Your task to perform on an android device: toggle data saver in the chrome app Image 0: 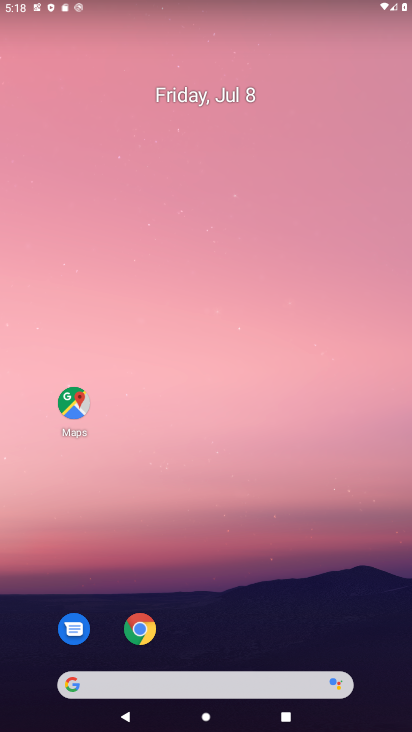
Step 0: press home button
Your task to perform on an android device: toggle data saver in the chrome app Image 1: 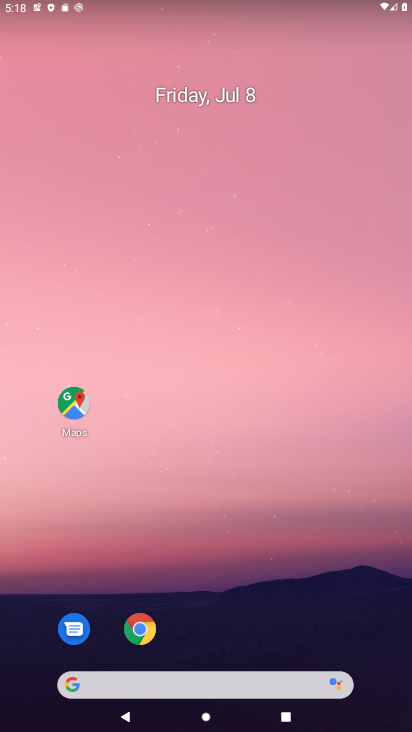
Step 1: drag from (259, 648) to (231, 264)
Your task to perform on an android device: toggle data saver in the chrome app Image 2: 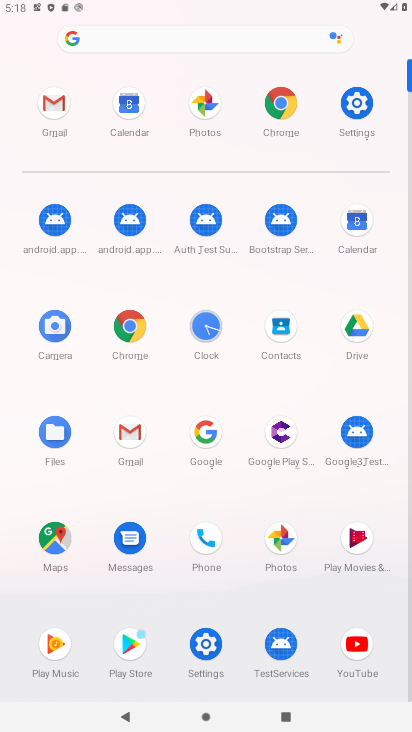
Step 2: click (270, 100)
Your task to perform on an android device: toggle data saver in the chrome app Image 3: 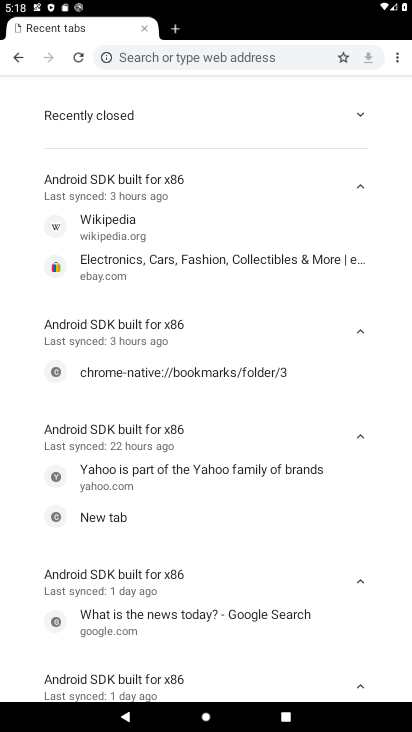
Step 3: press back button
Your task to perform on an android device: toggle data saver in the chrome app Image 4: 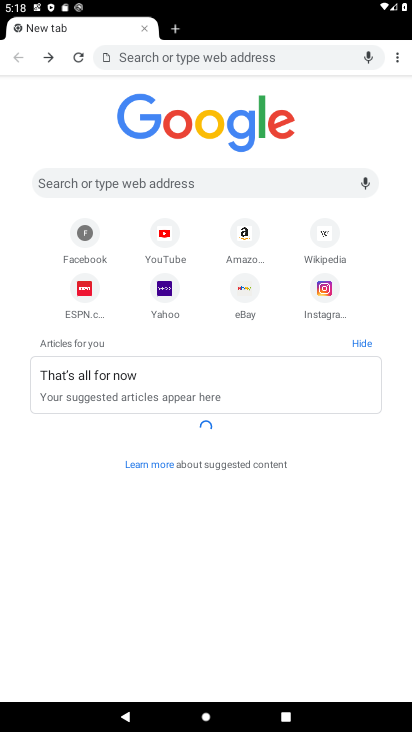
Step 4: drag from (402, 50) to (281, 263)
Your task to perform on an android device: toggle data saver in the chrome app Image 5: 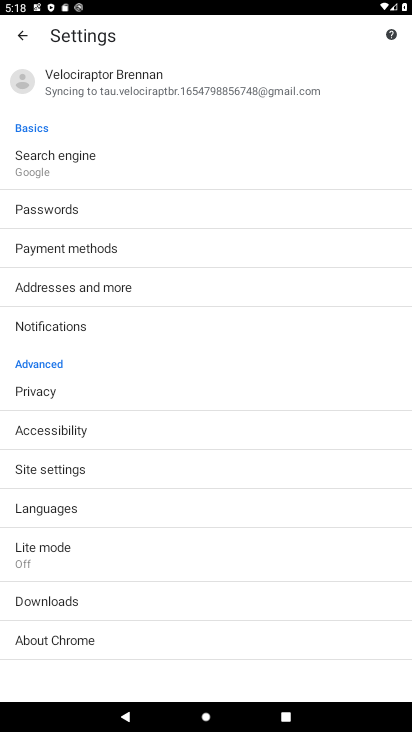
Step 5: click (57, 554)
Your task to perform on an android device: toggle data saver in the chrome app Image 6: 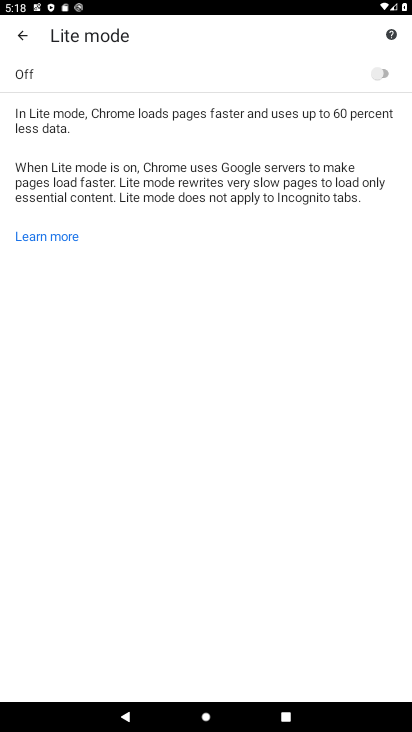
Step 6: click (383, 70)
Your task to perform on an android device: toggle data saver in the chrome app Image 7: 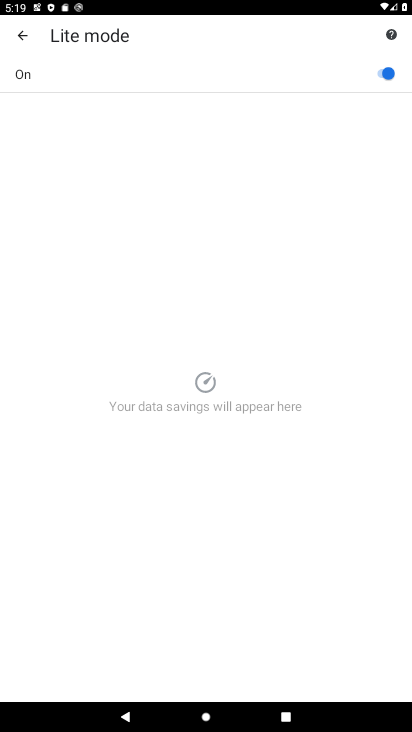
Step 7: task complete